Your task to perform on an android device: turn off smart reply in the gmail app Image 0: 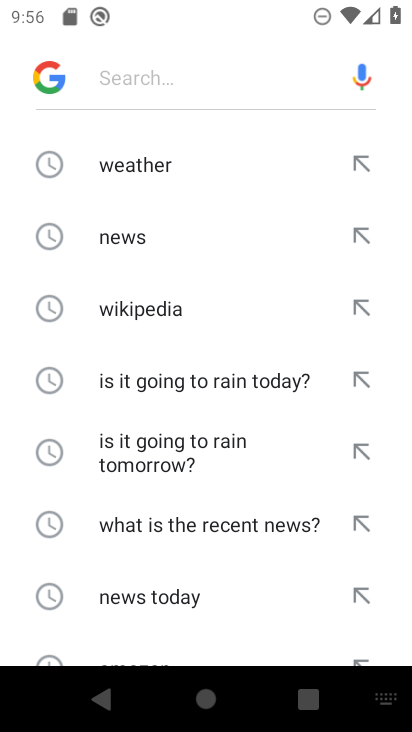
Step 0: press back button
Your task to perform on an android device: turn off smart reply in the gmail app Image 1: 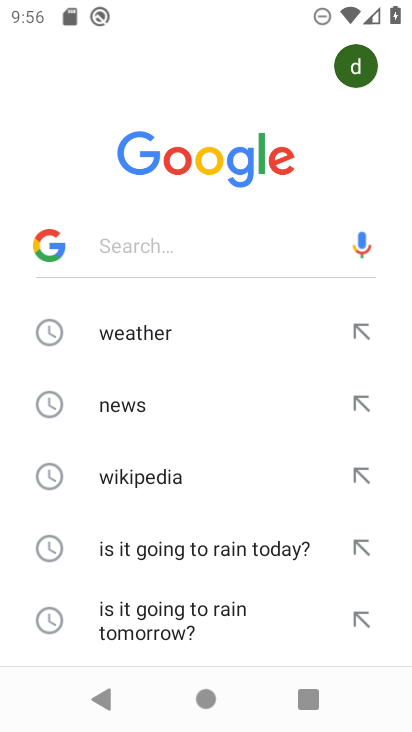
Step 1: press back button
Your task to perform on an android device: turn off smart reply in the gmail app Image 2: 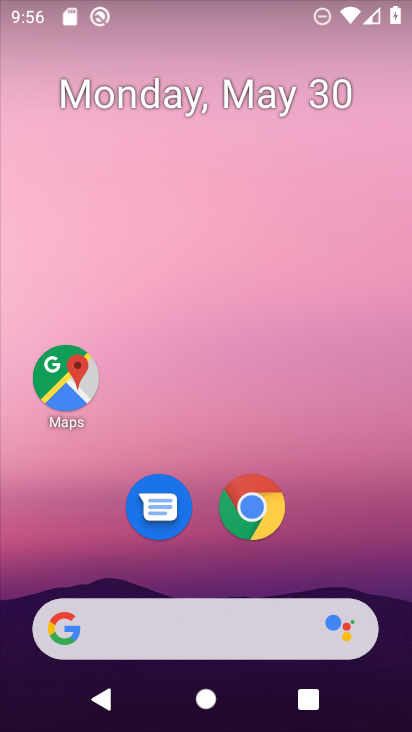
Step 2: drag from (140, 727) to (179, 194)
Your task to perform on an android device: turn off smart reply in the gmail app Image 3: 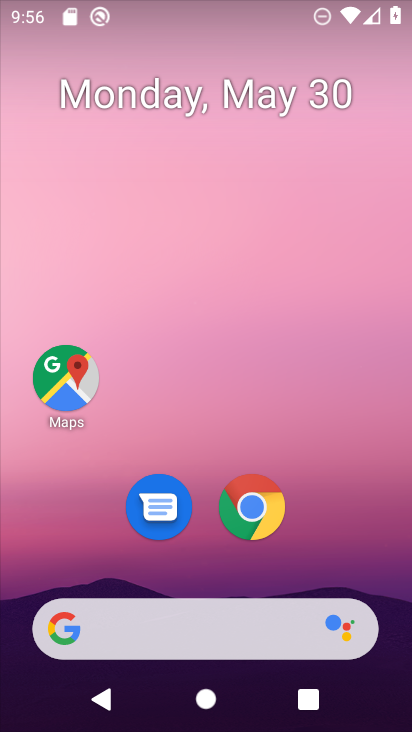
Step 3: drag from (164, 728) to (224, 158)
Your task to perform on an android device: turn off smart reply in the gmail app Image 4: 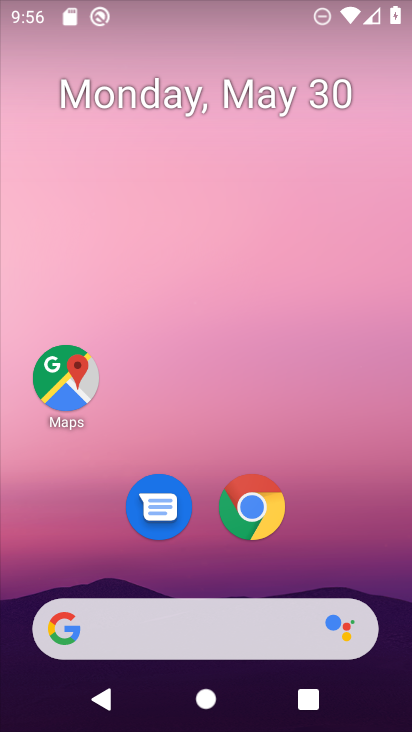
Step 4: drag from (162, 731) to (187, 97)
Your task to perform on an android device: turn off smart reply in the gmail app Image 5: 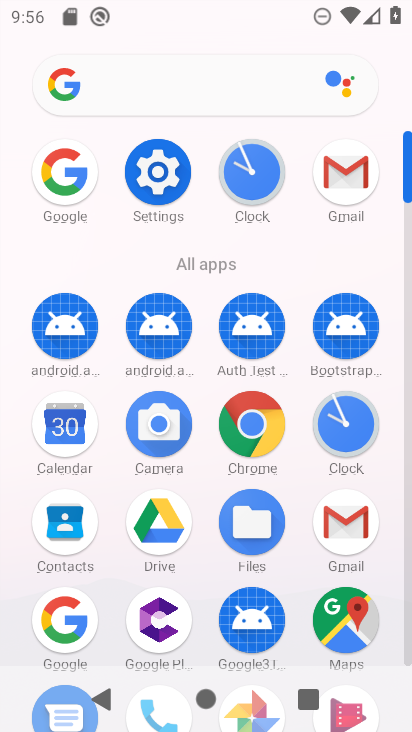
Step 5: click (335, 181)
Your task to perform on an android device: turn off smart reply in the gmail app Image 6: 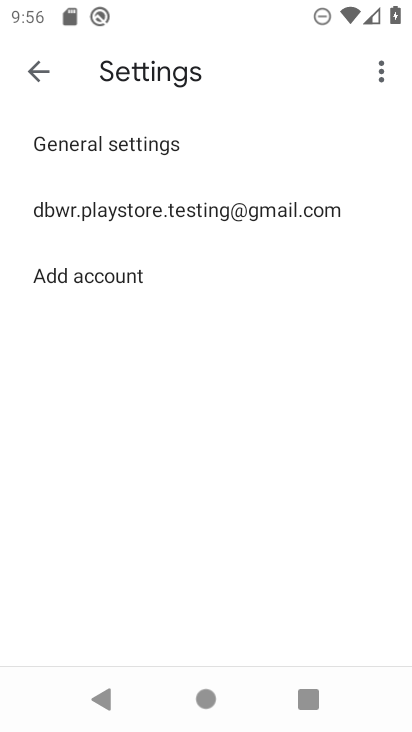
Step 6: click (176, 220)
Your task to perform on an android device: turn off smart reply in the gmail app Image 7: 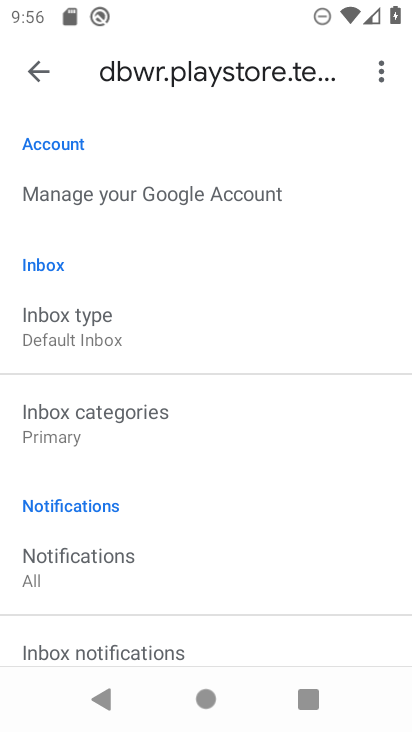
Step 7: drag from (174, 541) to (218, 199)
Your task to perform on an android device: turn off smart reply in the gmail app Image 8: 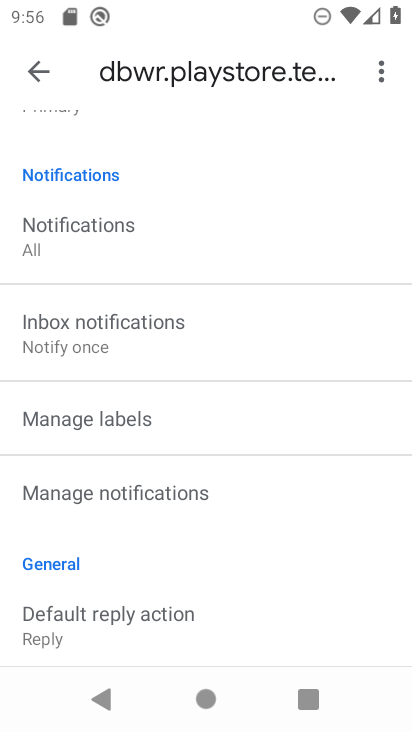
Step 8: drag from (257, 536) to (285, 255)
Your task to perform on an android device: turn off smart reply in the gmail app Image 9: 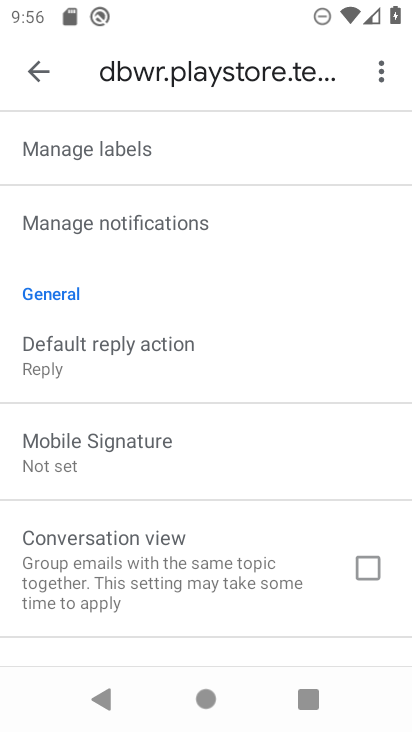
Step 9: drag from (268, 551) to (280, 292)
Your task to perform on an android device: turn off smart reply in the gmail app Image 10: 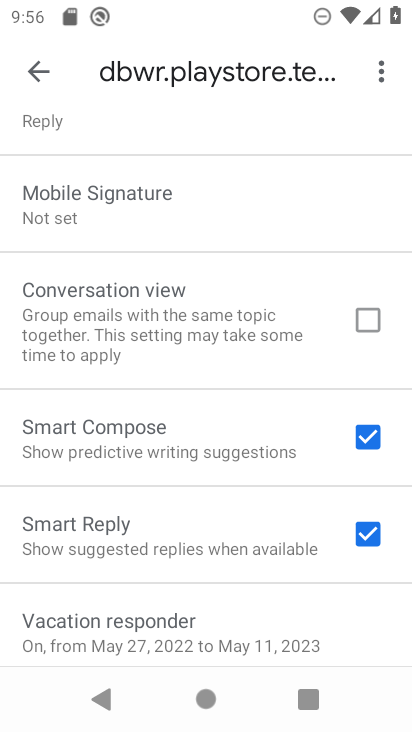
Step 10: click (368, 539)
Your task to perform on an android device: turn off smart reply in the gmail app Image 11: 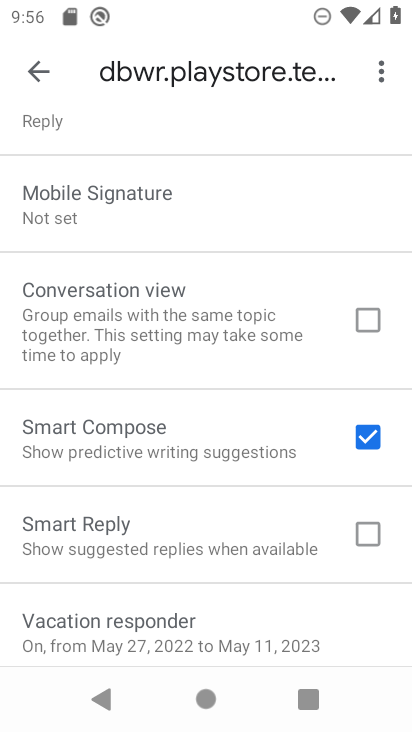
Step 11: task complete